Your task to perform on an android device: turn on sleep mode Image 0: 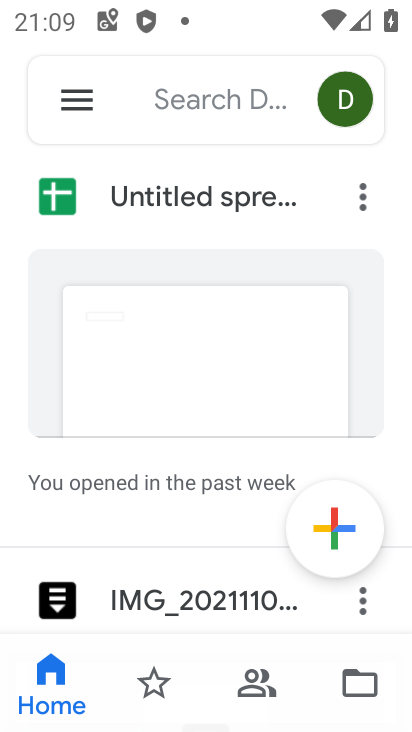
Step 0: press home button
Your task to perform on an android device: turn on sleep mode Image 1: 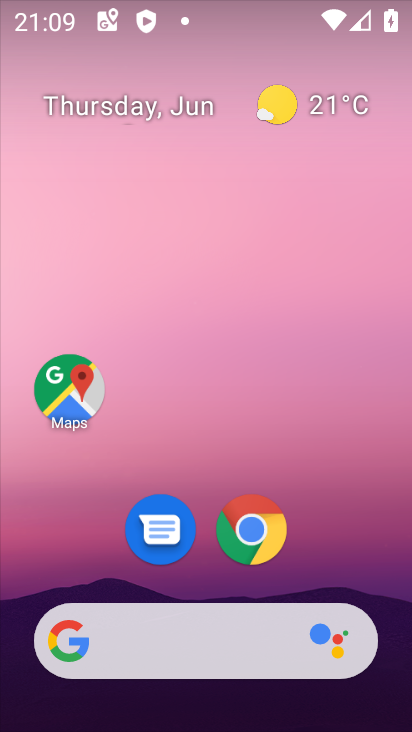
Step 1: drag from (343, 537) to (207, 180)
Your task to perform on an android device: turn on sleep mode Image 2: 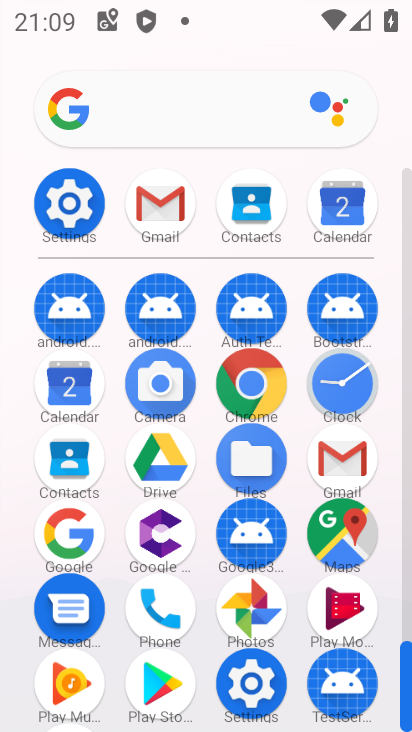
Step 2: click (61, 200)
Your task to perform on an android device: turn on sleep mode Image 3: 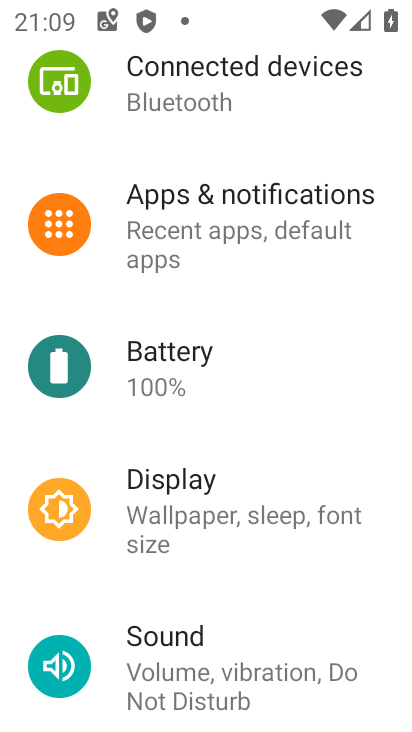
Step 3: click (174, 509)
Your task to perform on an android device: turn on sleep mode Image 4: 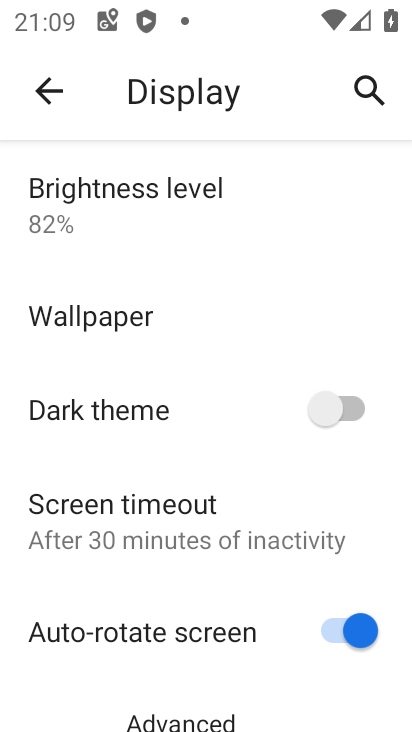
Step 4: task complete